Your task to perform on an android device: Open Google Image 0: 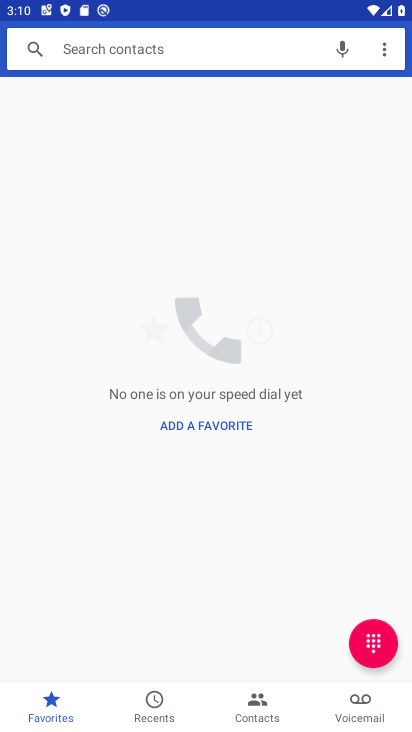
Step 0: press home button
Your task to perform on an android device: Open Google Image 1: 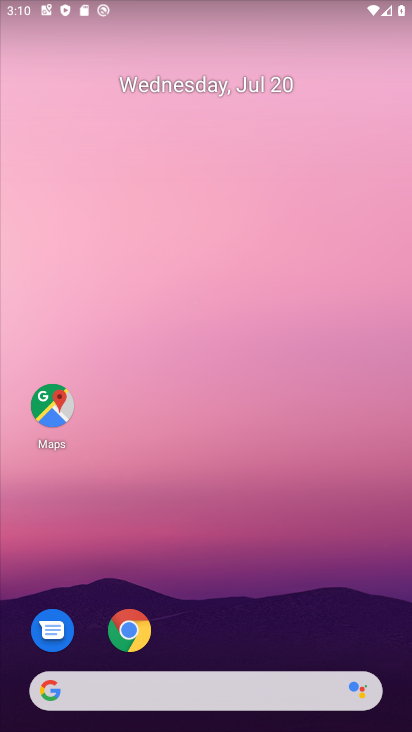
Step 1: click (370, 609)
Your task to perform on an android device: Open Google Image 2: 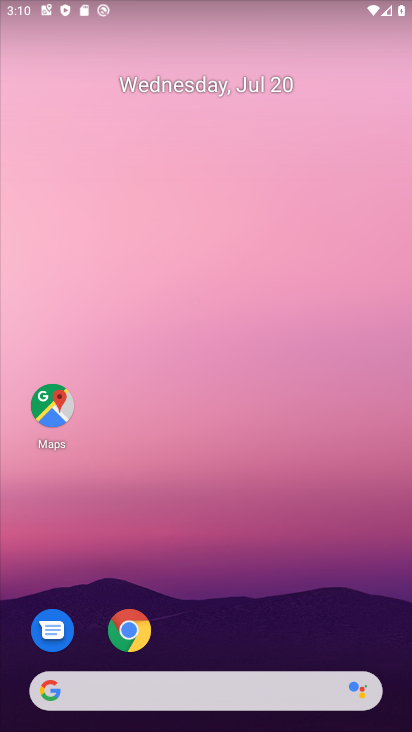
Step 2: click (370, 609)
Your task to perform on an android device: Open Google Image 3: 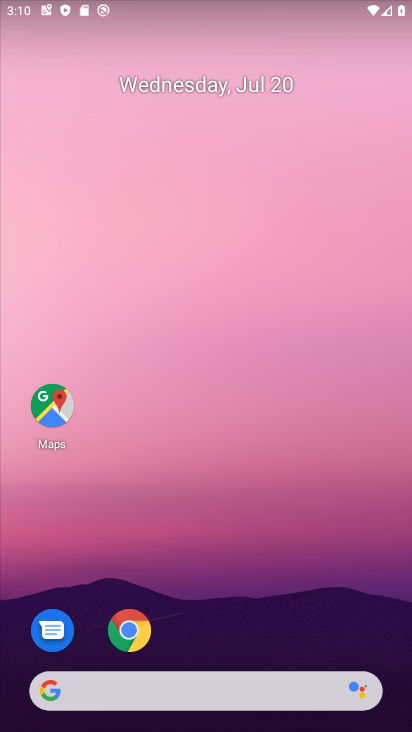
Step 3: drag from (370, 609) to (274, 103)
Your task to perform on an android device: Open Google Image 4: 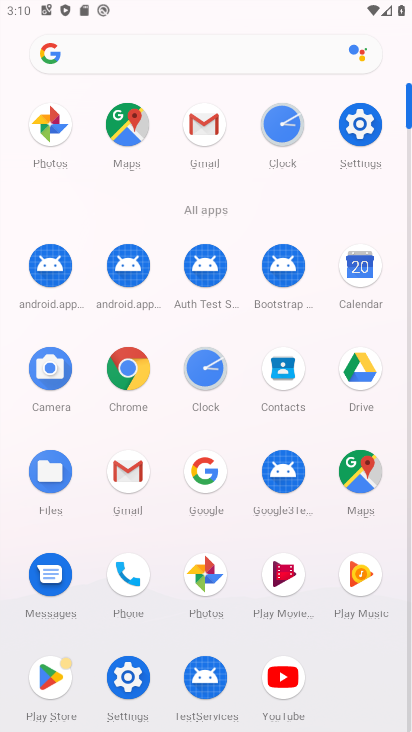
Step 4: click (204, 472)
Your task to perform on an android device: Open Google Image 5: 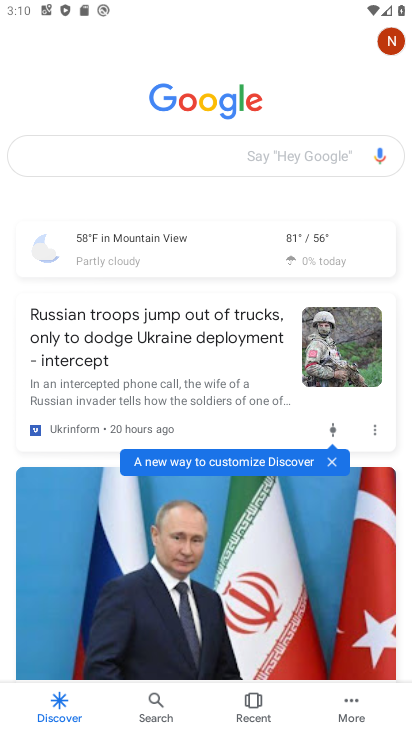
Step 5: task complete